Your task to perform on an android device: Add acer predator to the cart on target, then select checkout. Image 0: 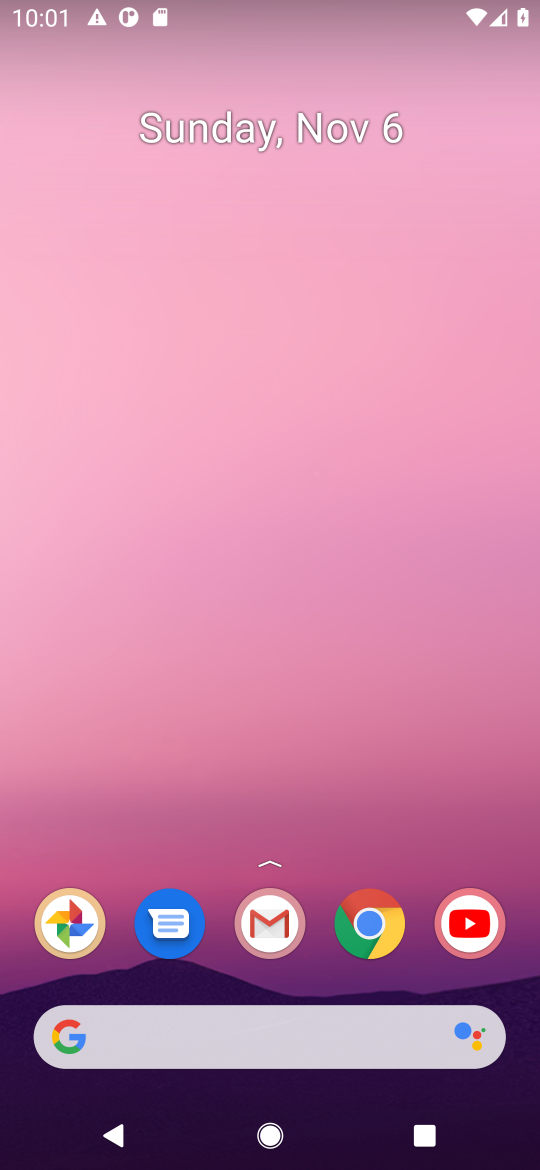
Step 0: click (382, 924)
Your task to perform on an android device: Add acer predator to the cart on target, then select checkout. Image 1: 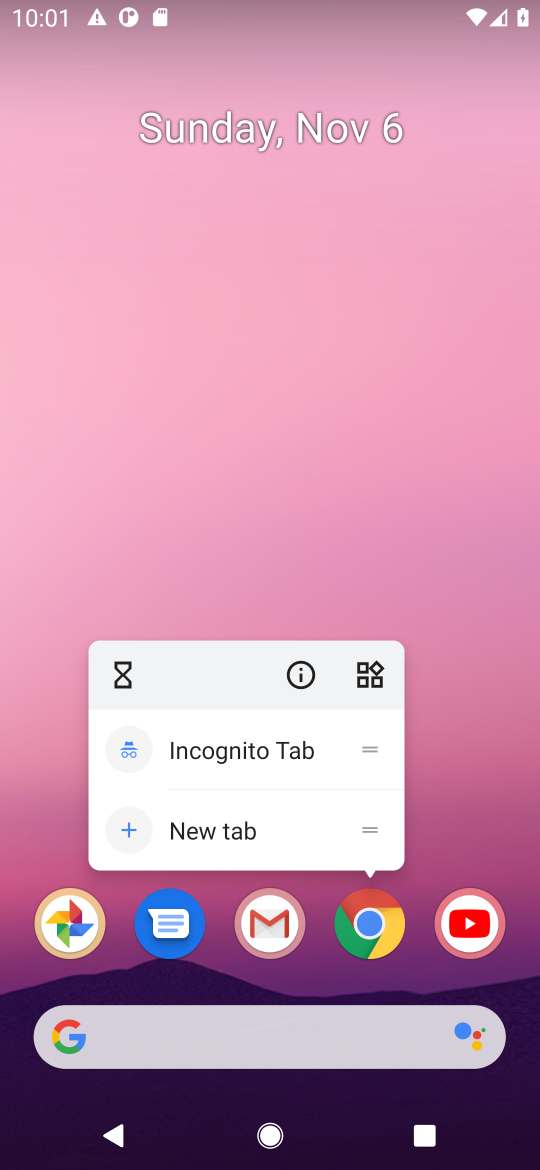
Step 1: click (375, 929)
Your task to perform on an android device: Add acer predator to the cart on target, then select checkout. Image 2: 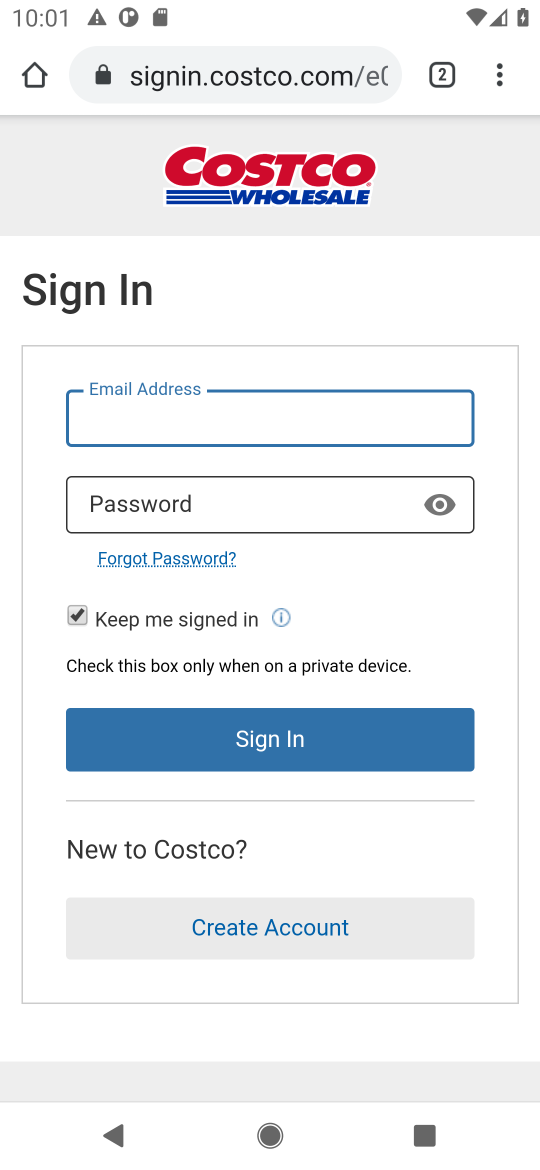
Step 2: click (256, 67)
Your task to perform on an android device: Add acer predator to the cart on target, then select checkout. Image 3: 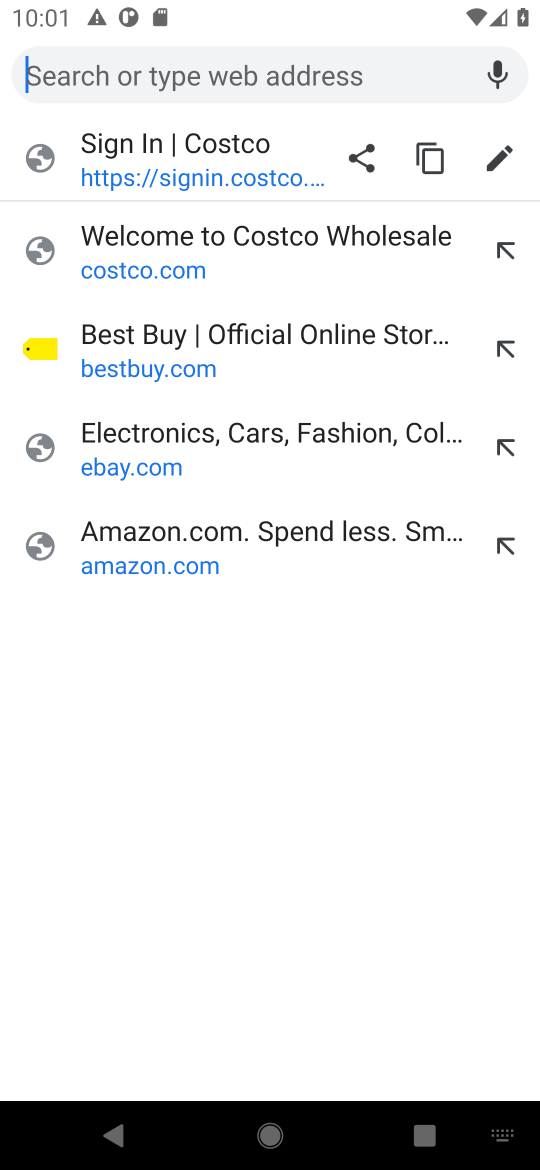
Step 3: type "target.com"
Your task to perform on an android device: Add acer predator to the cart on target, then select checkout. Image 4: 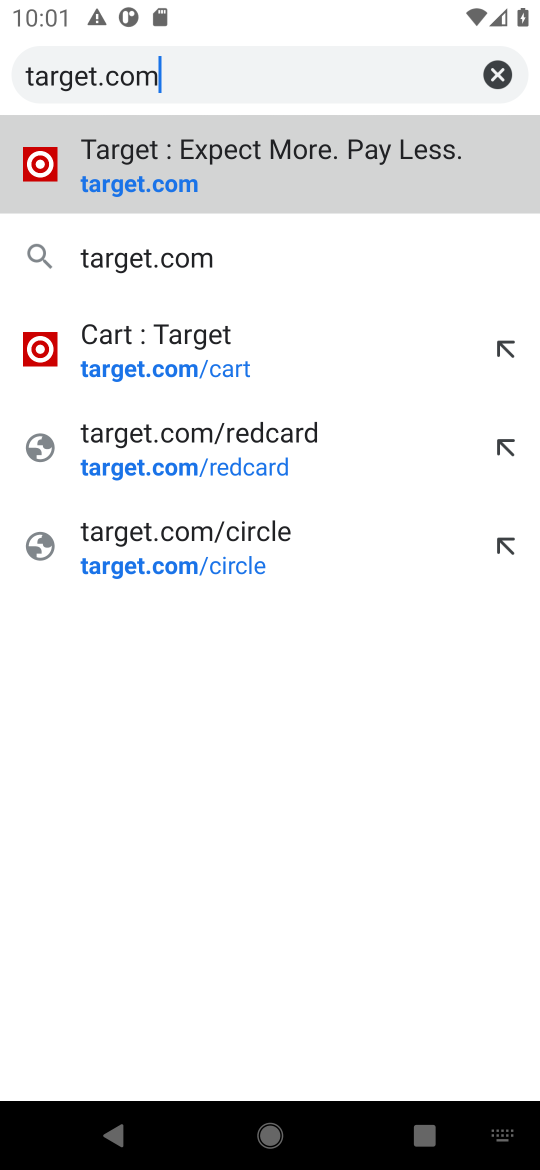
Step 4: click (120, 194)
Your task to perform on an android device: Add acer predator to the cart on target, then select checkout. Image 5: 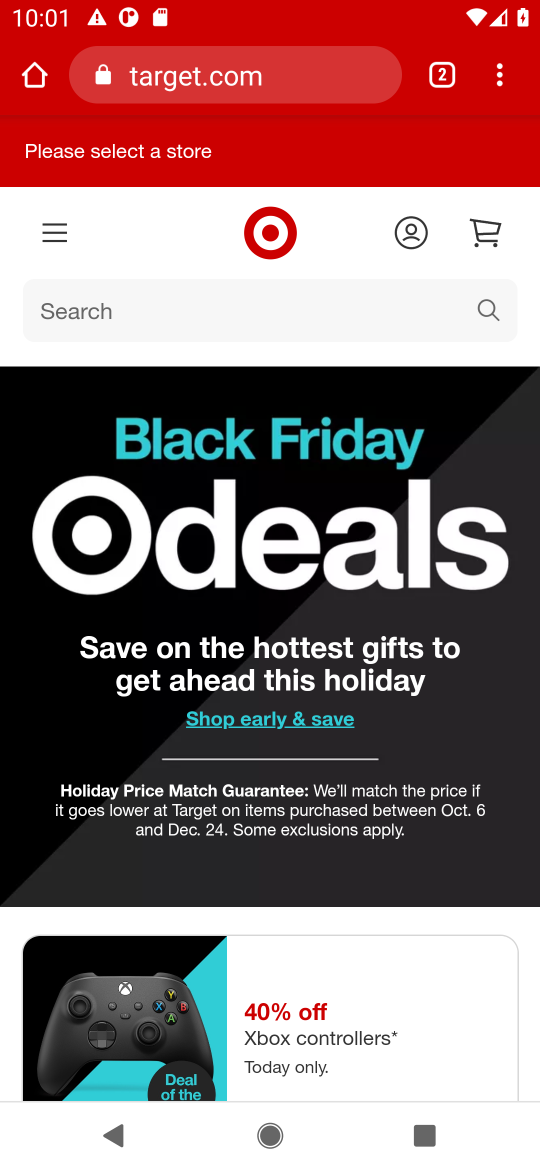
Step 5: click (486, 307)
Your task to perform on an android device: Add acer predator to the cart on target, then select checkout. Image 6: 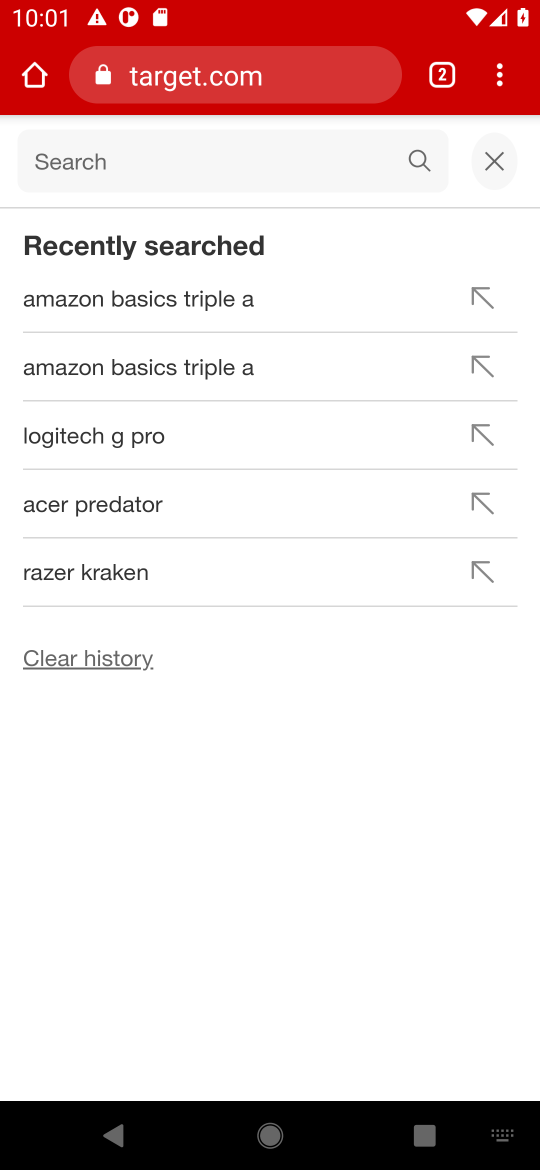
Step 6: type "acer predator"
Your task to perform on an android device: Add acer predator to the cart on target, then select checkout. Image 7: 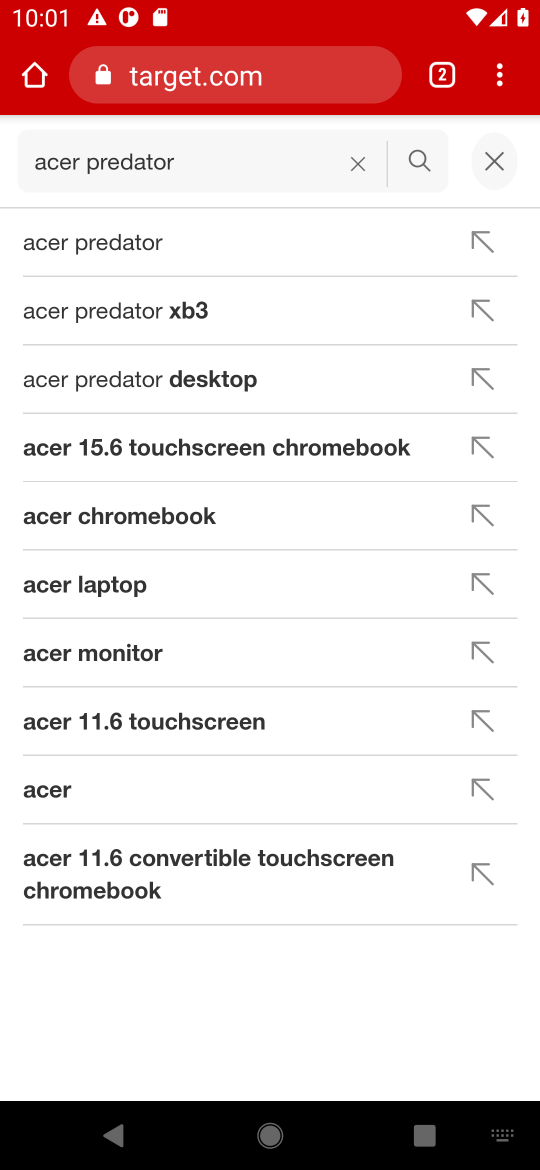
Step 7: click (127, 246)
Your task to perform on an android device: Add acer predator to the cart on target, then select checkout. Image 8: 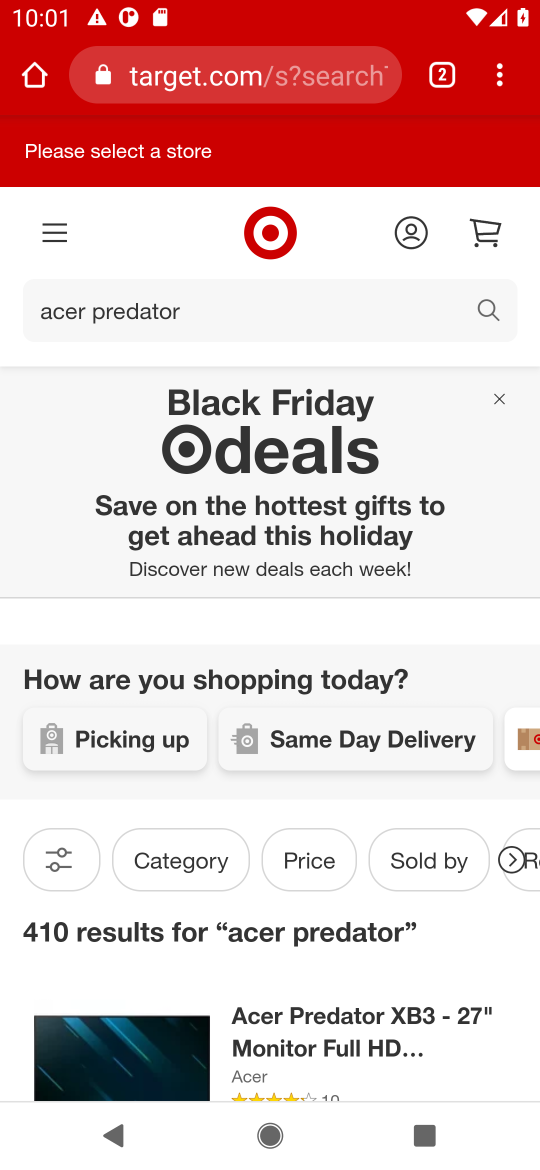
Step 8: drag from (226, 930) to (192, 443)
Your task to perform on an android device: Add acer predator to the cart on target, then select checkout. Image 9: 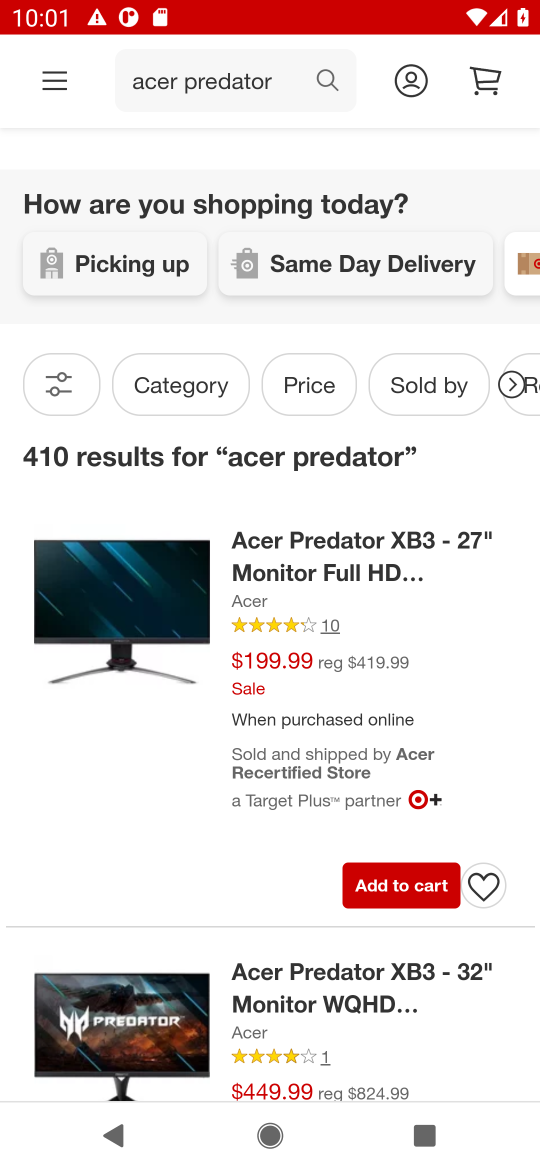
Step 9: click (383, 895)
Your task to perform on an android device: Add acer predator to the cart on target, then select checkout. Image 10: 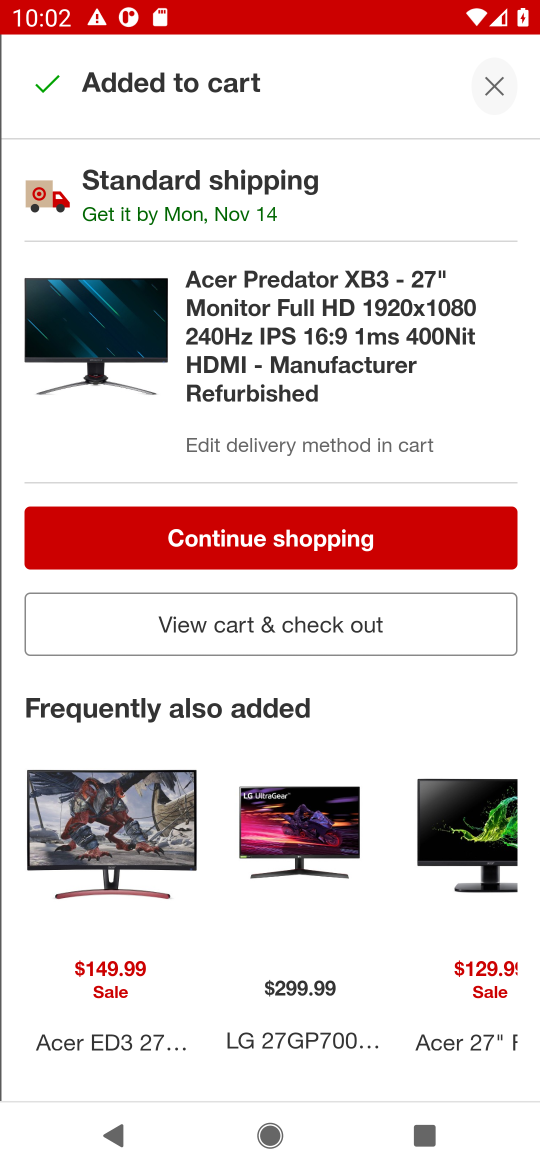
Step 10: click (217, 632)
Your task to perform on an android device: Add acer predator to the cart on target, then select checkout. Image 11: 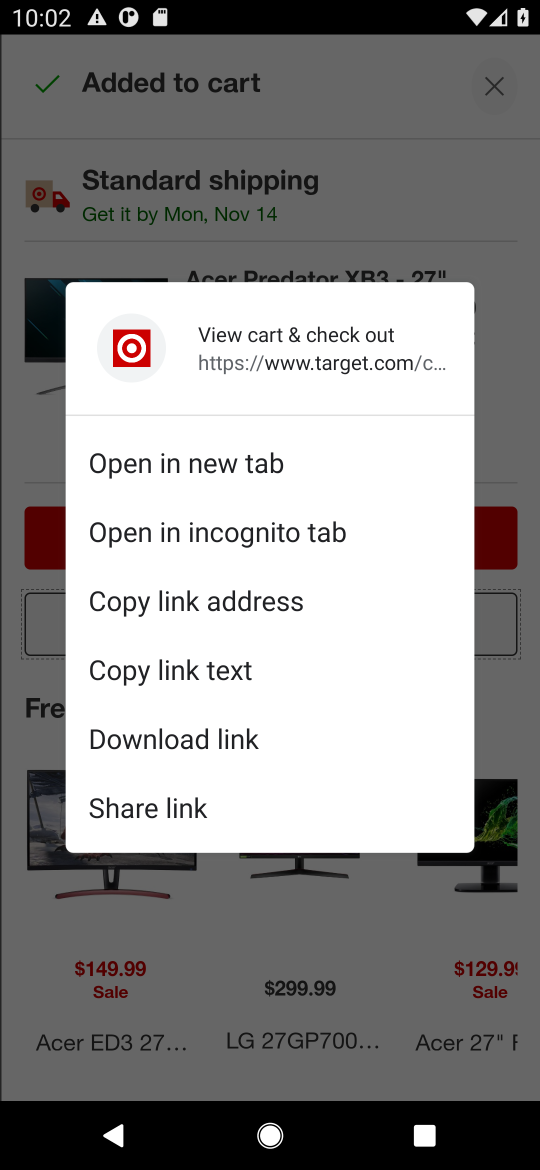
Step 11: click (496, 607)
Your task to perform on an android device: Add acer predator to the cart on target, then select checkout. Image 12: 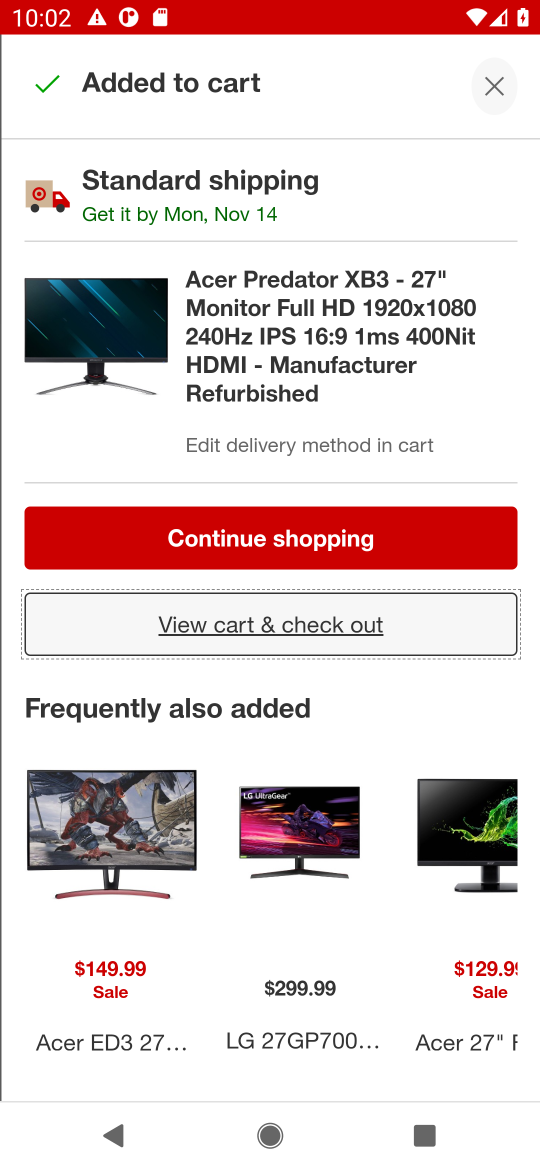
Step 12: click (308, 628)
Your task to perform on an android device: Add acer predator to the cart on target, then select checkout. Image 13: 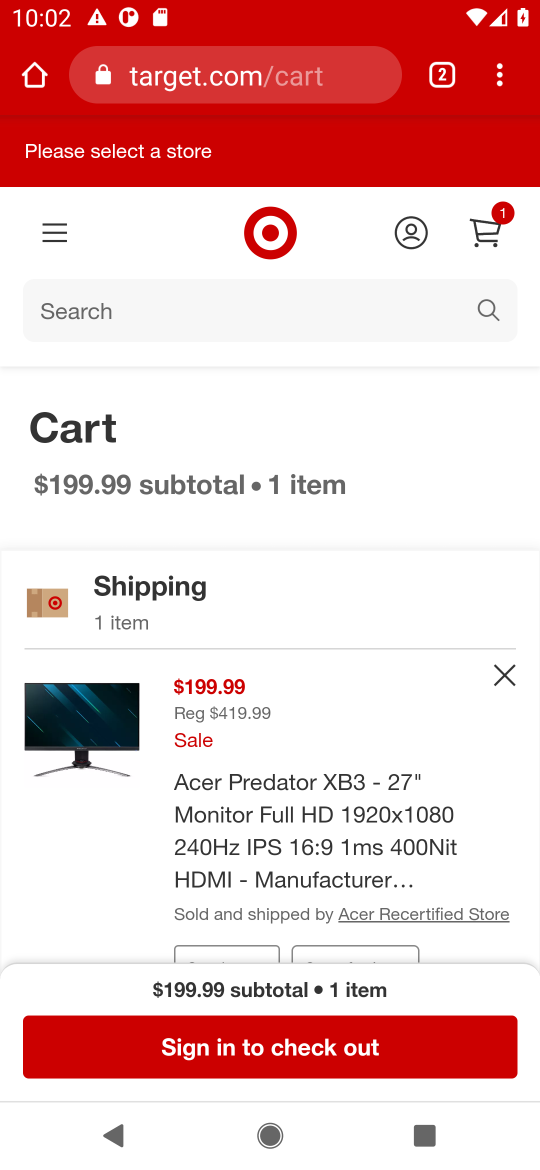
Step 13: click (256, 1056)
Your task to perform on an android device: Add acer predator to the cart on target, then select checkout. Image 14: 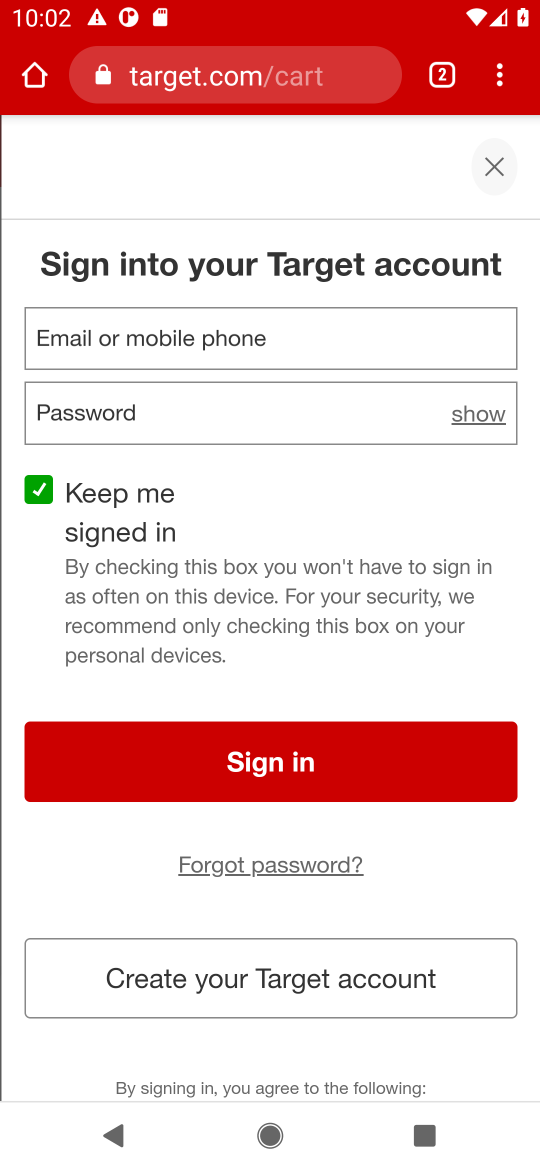
Step 14: task complete